Your task to perform on an android device: Open the calendar and show me this week's events? Image 0: 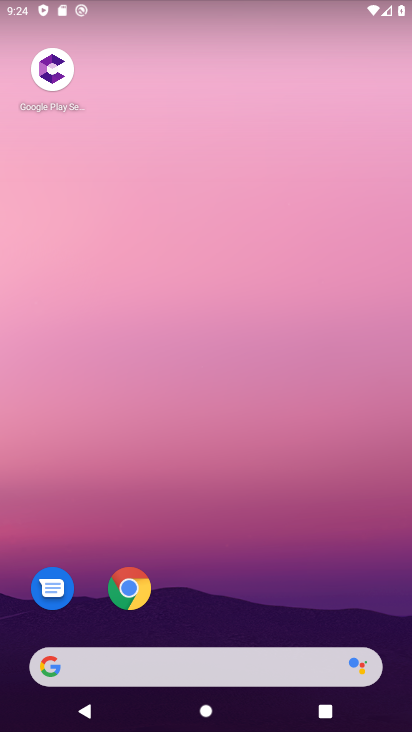
Step 0: drag from (332, 597) to (400, 59)
Your task to perform on an android device: Open the calendar and show me this week's events? Image 1: 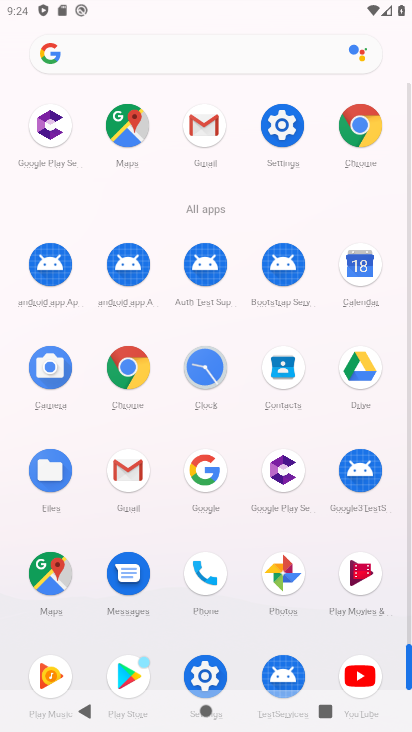
Step 1: drag from (245, 181) to (262, 6)
Your task to perform on an android device: Open the calendar and show me this week's events? Image 2: 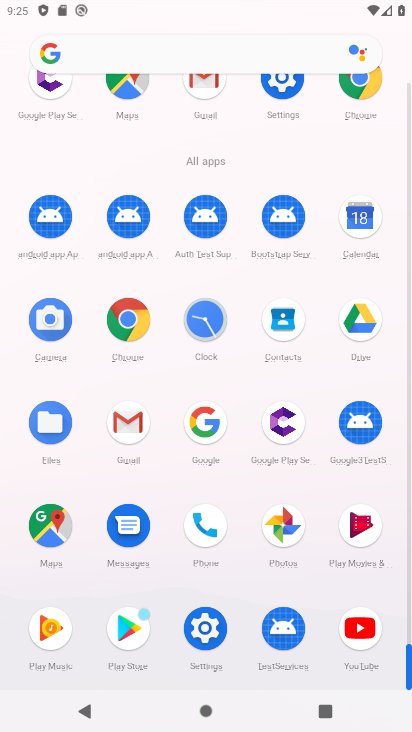
Step 2: click (360, 208)
Your task to perform on an android device: Open the calendar and show me this week's events? Image 3: 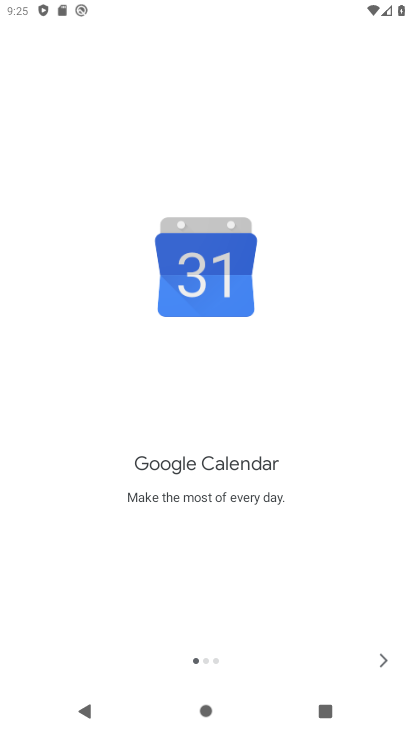
Step 3: click (385, 661)
Your task to perform on an android device: Open the calendar and show me this week's events? Image 4: 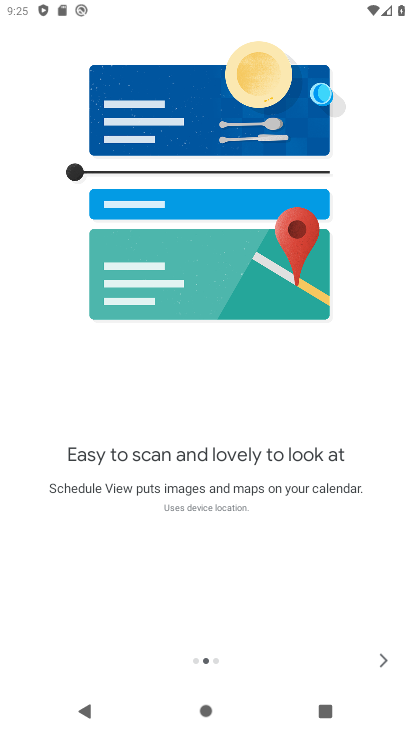
Step 4: click (385, 661)
Your task to perform on an android device: Open the calendar and show me this week's events? Image 5: 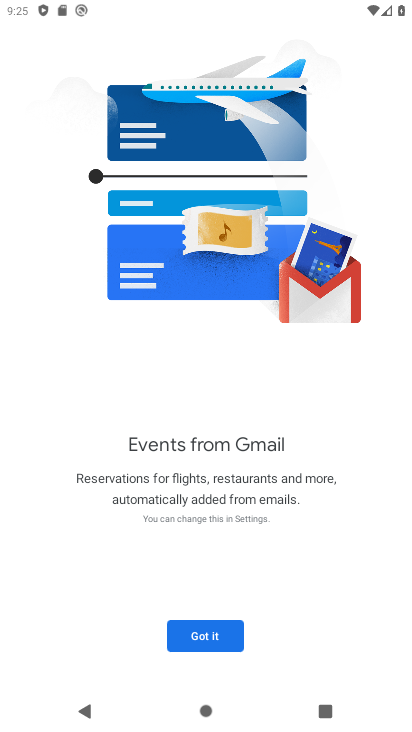
Step 5: click (225, 637)
Your task to perform on an android device: Open the calendar and show me this week's events? Image 6: 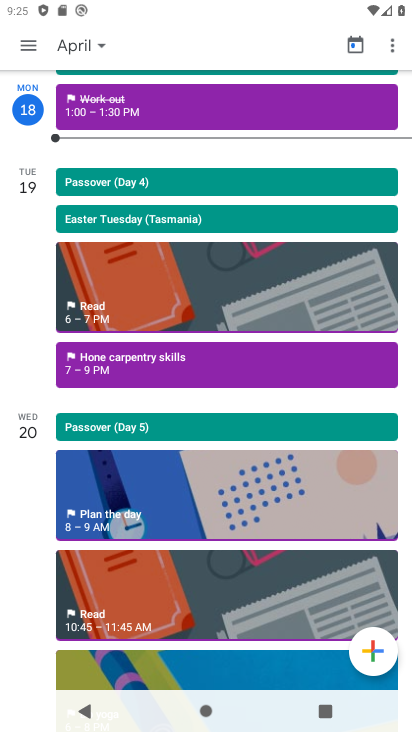
Step 6: click (98, 42)
Your task to perform on an android device: Open the calendar and show me this week's events? Image 7: 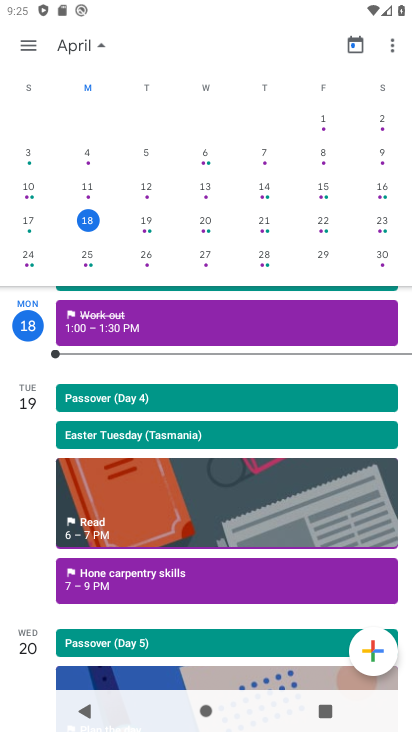
Step 7: click (262, 219)
Your task to perform on an android device: Open the calendar and show me this week's events? Image 8: 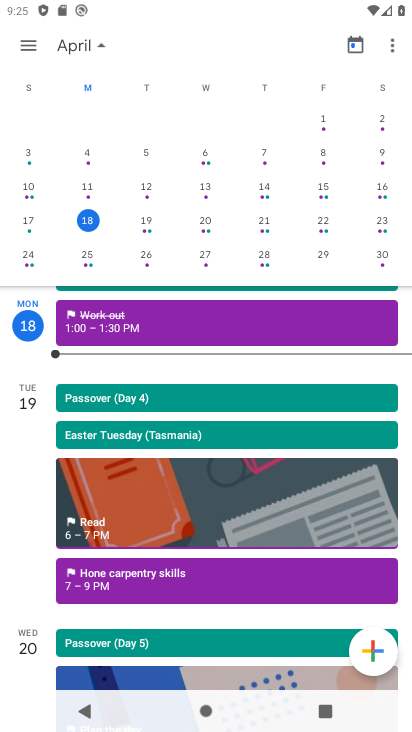
Step 8: click (260, 219)
Your task to perform on an android device: Open the calendar and show me this week's events? Image 9: 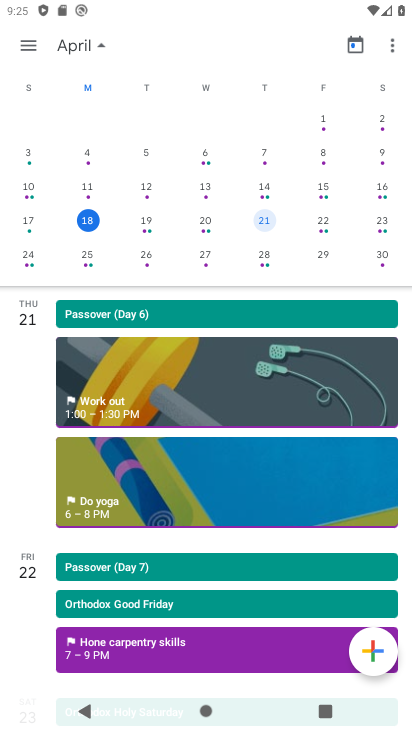
Step 9: task complete